Your task to perform on an android device: open a bookmark in the chrome app Image 0: 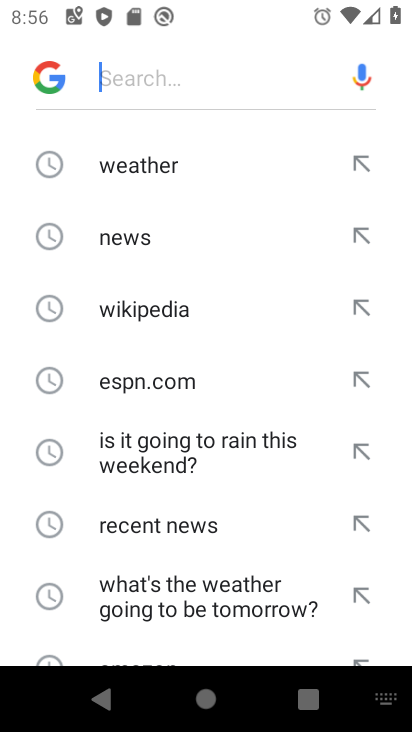
Step 0: press home button
Your task to perform on an android device: open a bookmark in the chrome app Image 1: 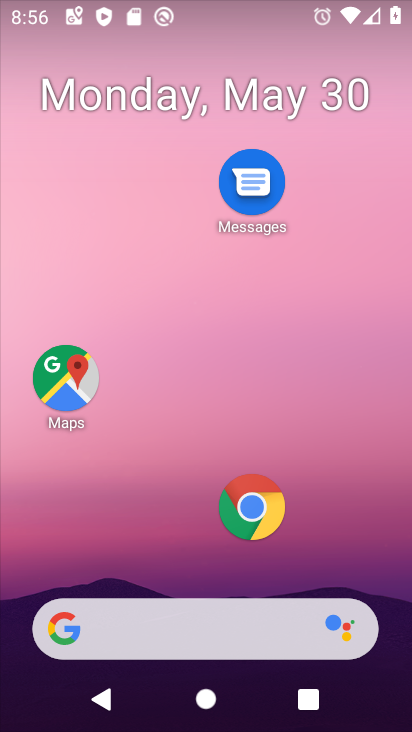
Step 1: click (262, 508)
Your task to perform on an android device: open a bookmark in the chrome app Image 2: 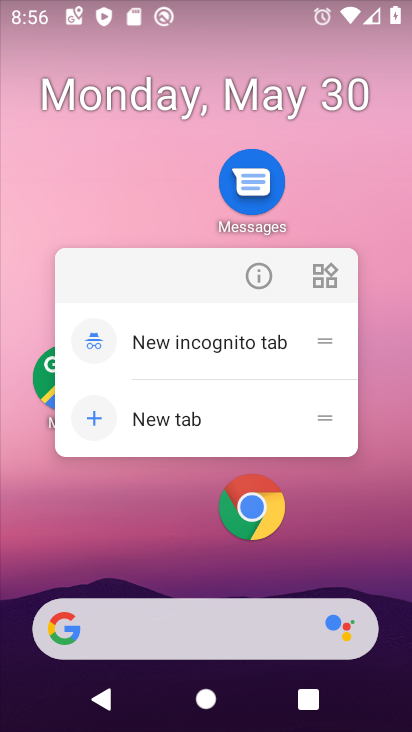
Step 2: click (240, 509)
Your task to perform on an android device: open a bookmark in the chrome app Image 3: 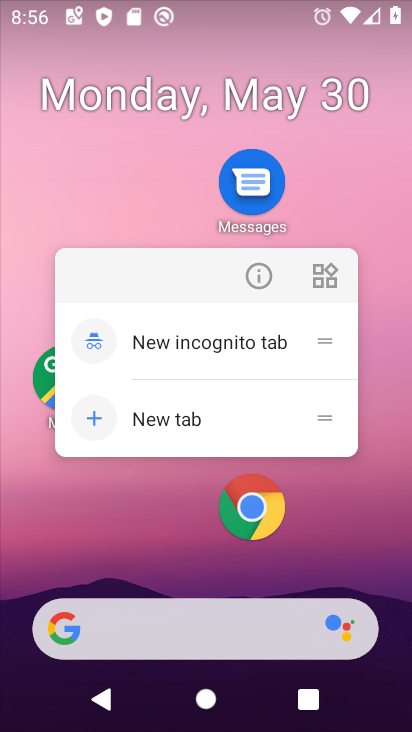
Step 3: click (250, 517)
Your task to perform on an android device: open a bookmark in the chrome app Image 4: 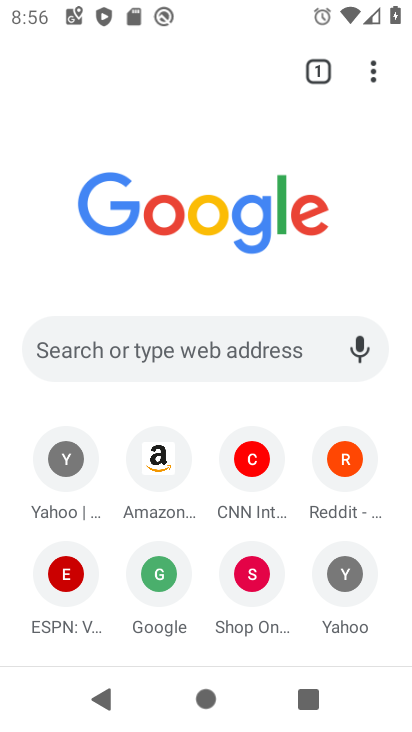
Step 4: click (375, 73)
Your task to perform on an android device: open a bookmark in the chrome app Image 5: 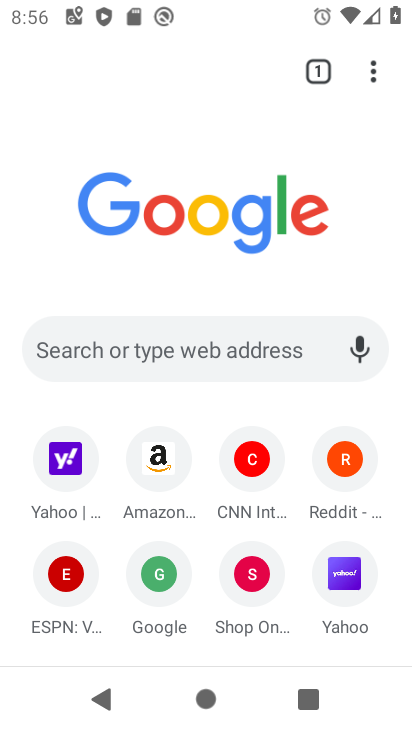
Step 5: click (368, 82)
Your task to perform on an android device: open a bookmark in the chrome app Image 6: 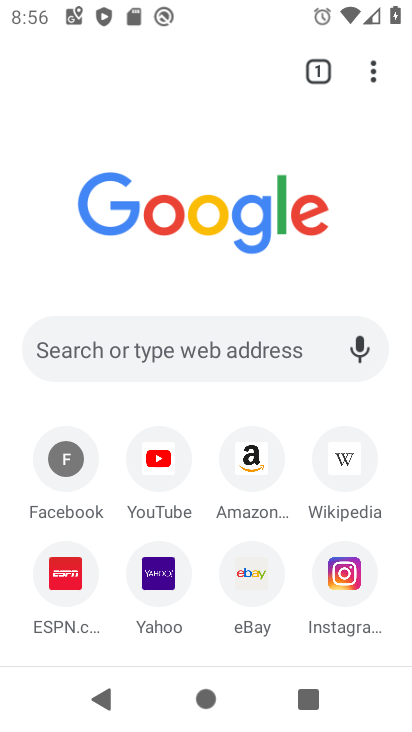
Step 6: click (377, 83)
Your task to perform on an android device: open a bookmark in the chrome app Image 7: 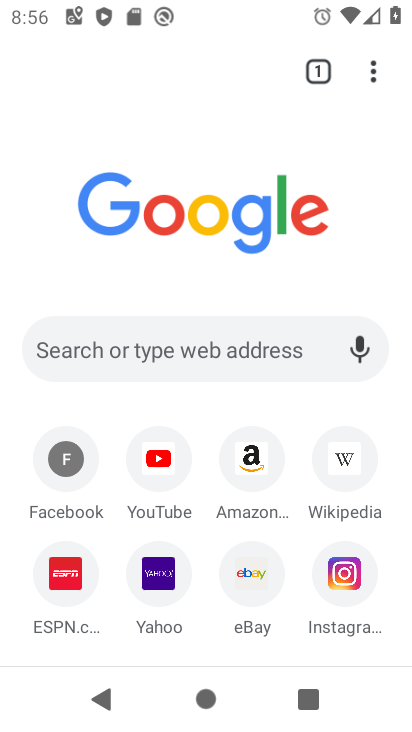
Step 7: click (374, 72)
Your task to perform on an android device: open a bookmark in the chrome app Image 8: 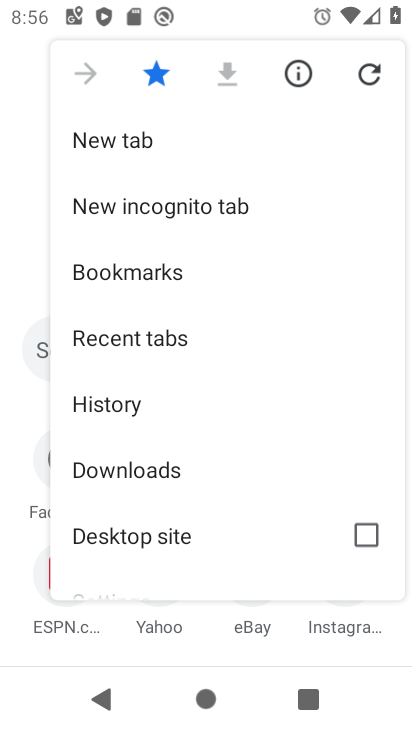
Step 8: click (155, 269)
Your task to perform on an android device: open a bookmark in the chrome app Image 9: 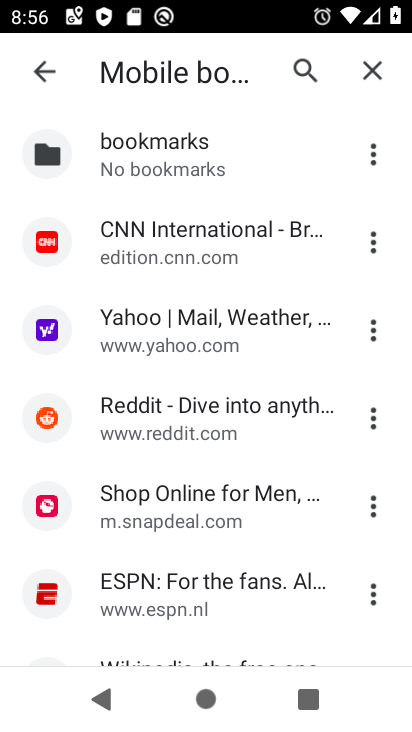
Step 9: click (167, 248)
Your task to perform on an android device: open a bookmark in the chrome app Image 10: 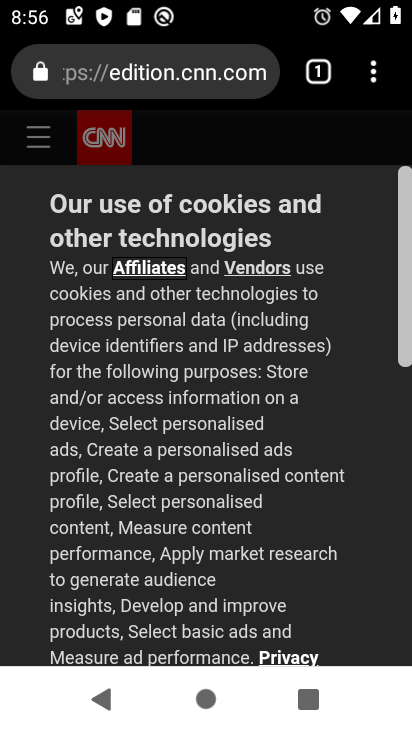
Step 10: task complete